Your task to perform on an android device: Is it going to rain tomorrow? Image 0: 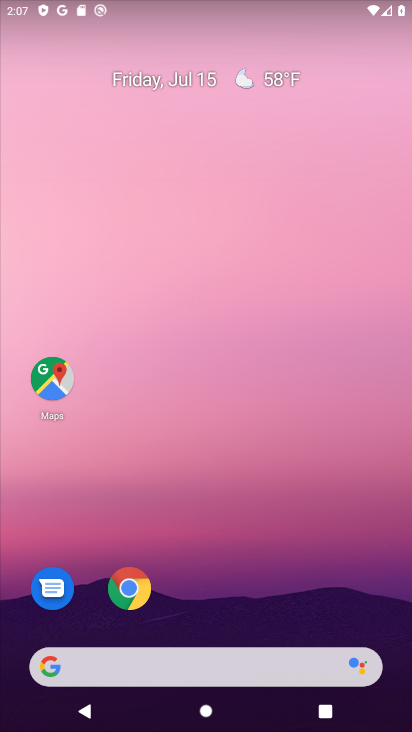
Step 0: drag from (309, 590) to (213, 60)
Your task to perform on an android device: Is it going to rain tomorrow? Image 1: 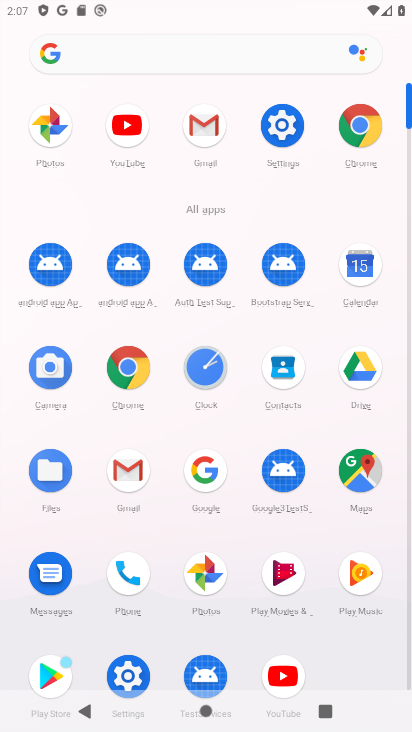
Step 1: click (157, 50)
Your task to perform on an android device: Is it going to rain tomorrow? Image 2: 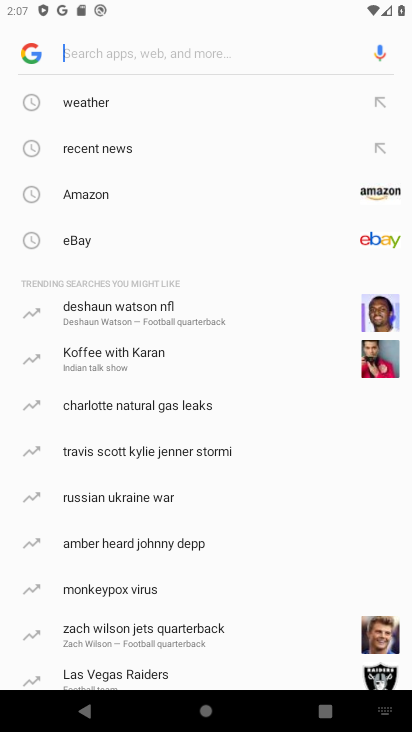
Step 2: click (161, 102)
Your task to perform on an android device: Is it going to rain tomorrow? Image 3: 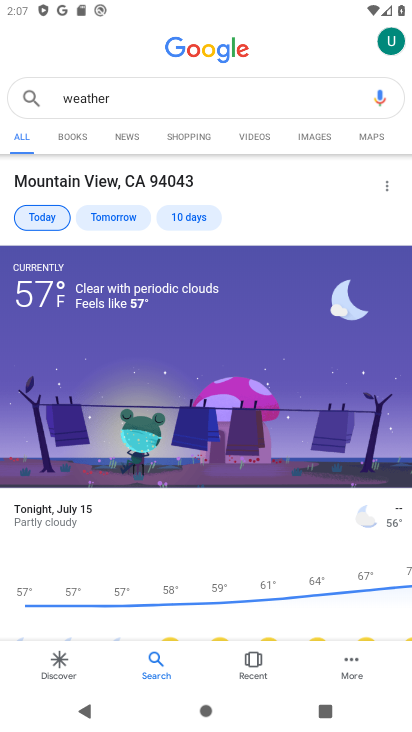
Step 3: task complete